Your task to perform on an android device: Open calendar and show me the second week of next month Image 0: 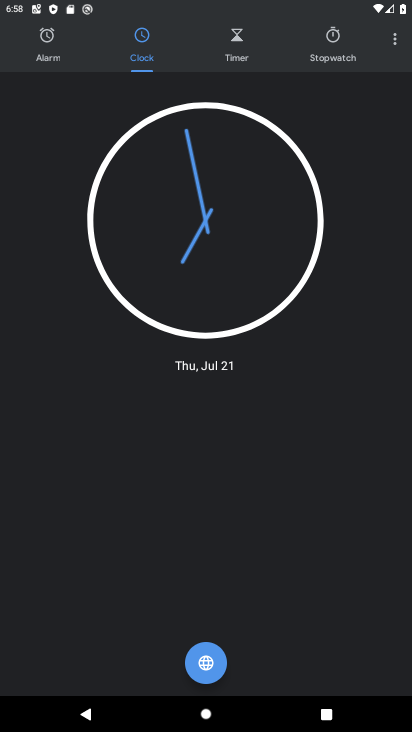
Step 0: press home button
Your task to perform on an android device: Open calendar and show me the second week of next month Image 1: 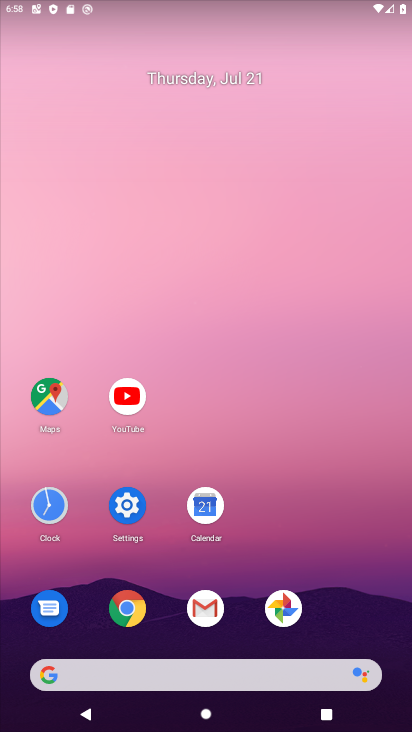
Step 1: click (207, 510)
Your task to perform on an android device: Open calendar and show me the second week of next month Image 2: 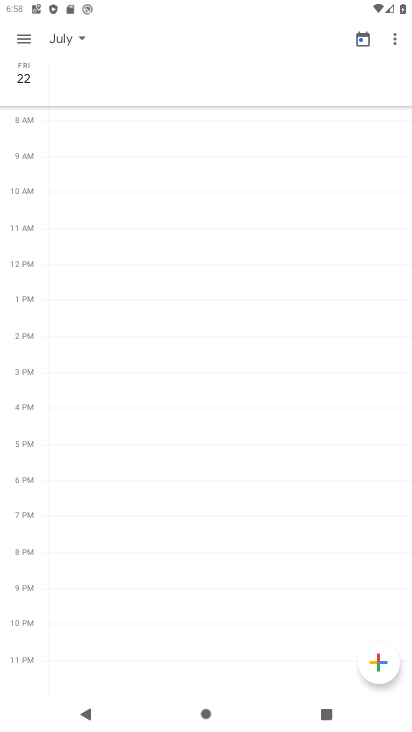
Step 2: click (23, 33)
Your task to perform on an android device: Open calendar and show me the second week of next month Image 3: 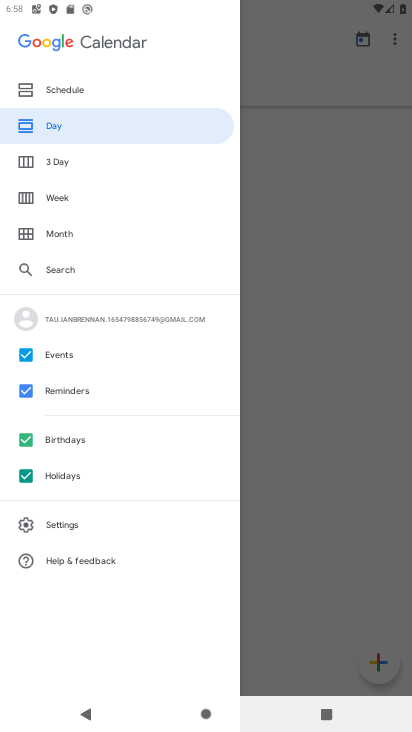
Step 3: click (63, 192)
Your task to perform on an android device: Open calendar and show me the second week of next month Image 4: 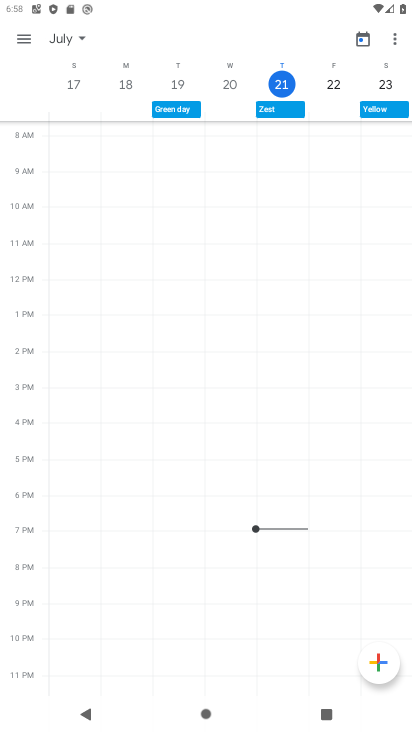
Step 4: click (80, 40)
Your task to perform on an android device: Open calendar and show me the second week of next month Image 5: 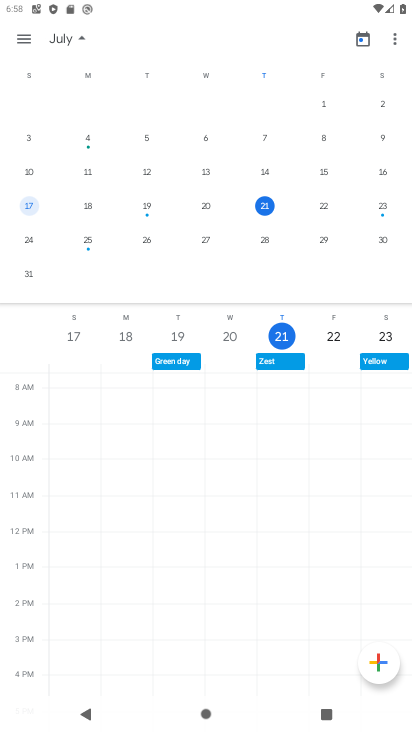
Step 5: drag from (381, 149) to (19, 153)
Your task to perform on an android device: Open calendar and show me the second week of next month Image 6: 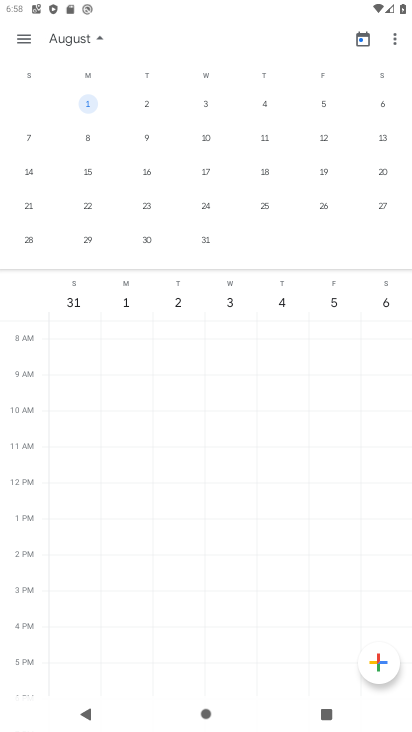
Step 6: click (85, 133)
Your task to perform on an android device: Open calendar and show me the second week of next month Image 7: 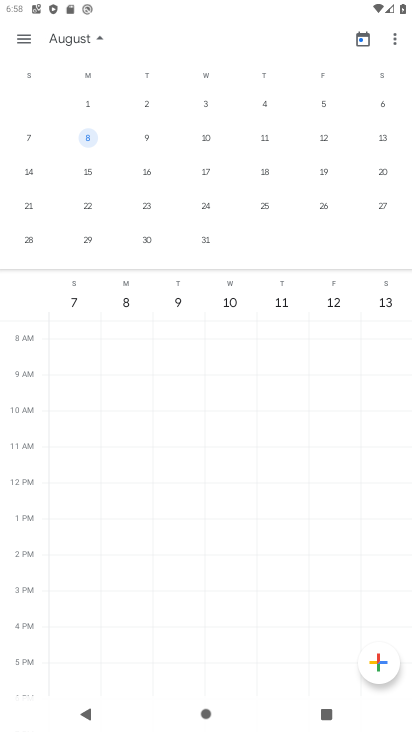
Step 7: task complete